Your task to perform on an android device: Play the last video I watched on Youtube Image 0: 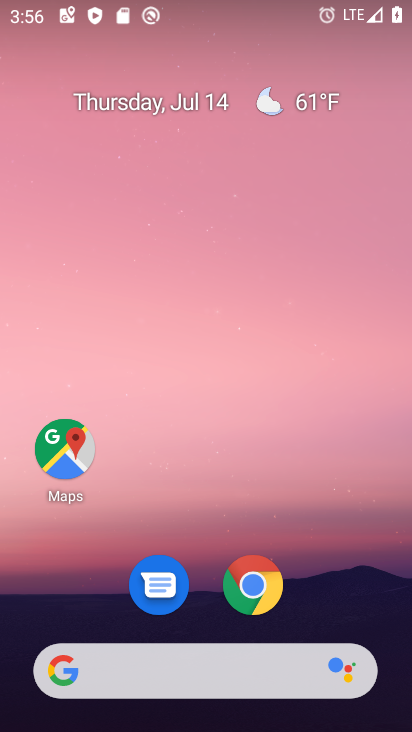
Step 0: drag from (314, 604) to (328, 57)
Your task to perform on an android device: Play the last video I watched on Youtube Image 1: 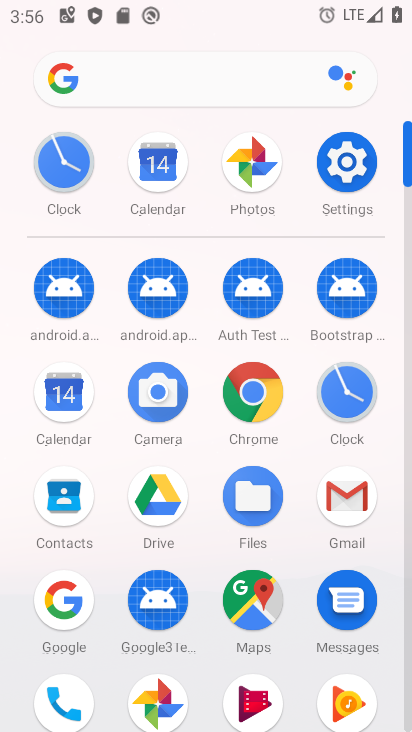
Step 1: drag from (306, 483) to (297, 162)
Your task to perform on an android device: Play the last video I watched on Youtube Image 2: 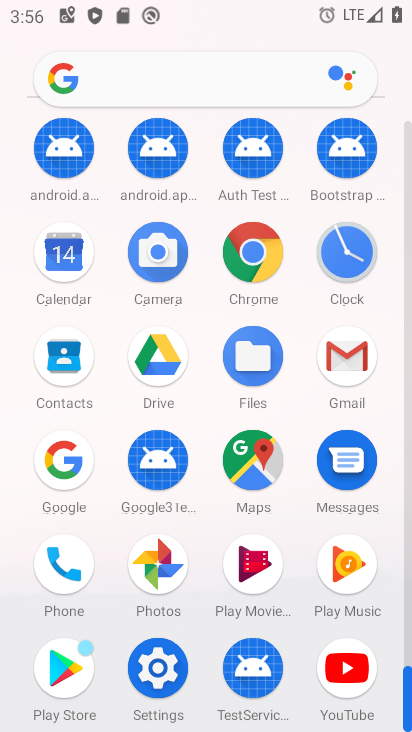
Step 2: click (351, 670)
Your task to perform on an android device: Play the last video I watched on Youtube Image 3: 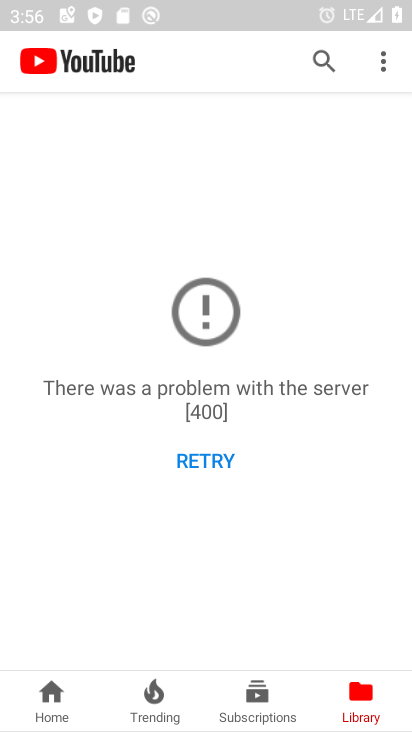
Step 3: click (189, 442)
Your task to perform on an android device: Play the last video I watched on Youtube Image 4: 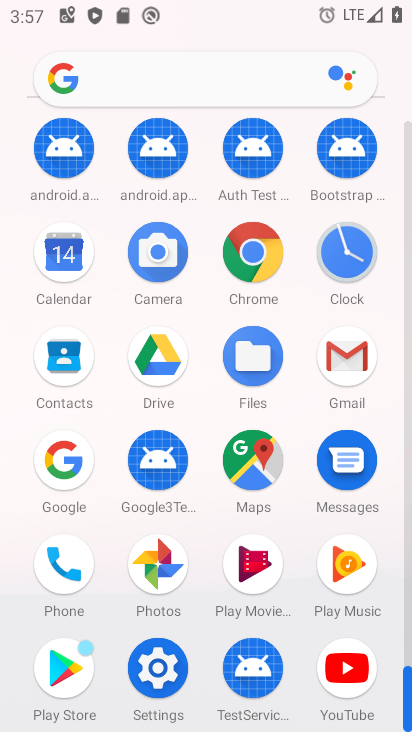
Step 4: click (350, 665)
Your task to perform on an android device: Play the last video I watched on Youtube Image 5: 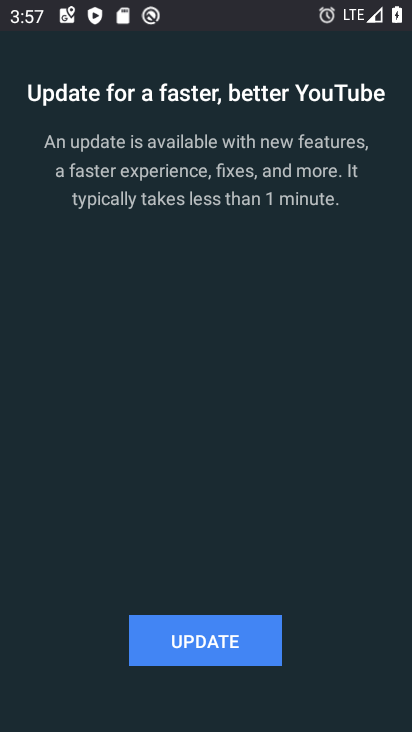
Step 5: click (262, 634)
Your task to perform on an android device: Play the last video I watched on Youtube Image 6: 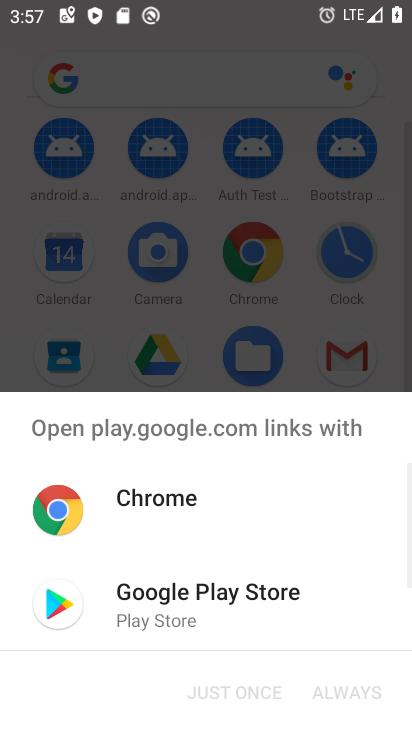
Step 6: click (255, 603)
Your task to perform on an android device: Play the last video I watched on Youtube Image 7: 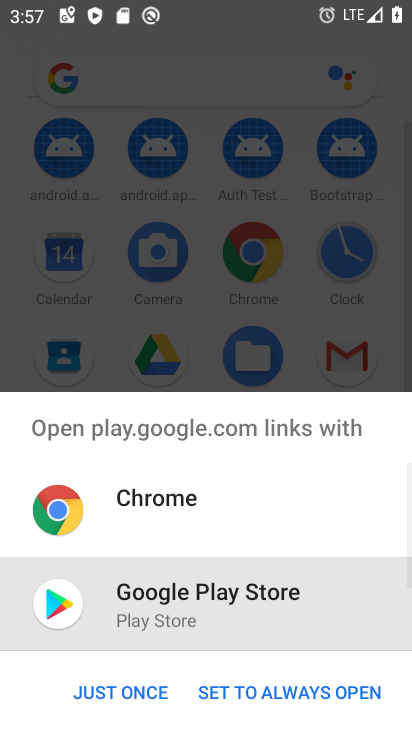
Step 7: click (151, 693)
Your task to perform on an android device: Play the last video I watched on Youtube Image 8: 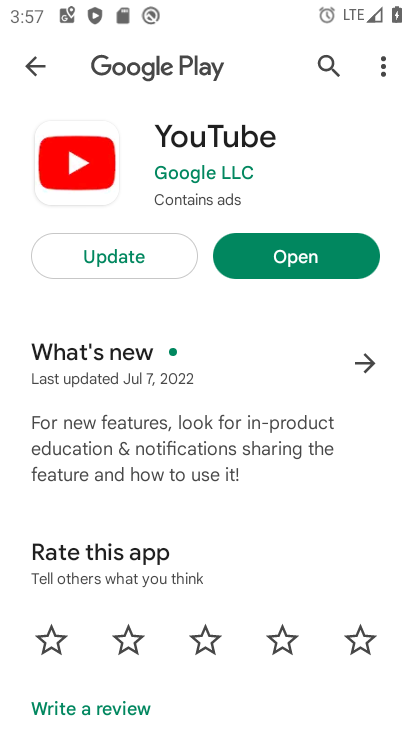
Step 8: click (168, 260)
Your task to perform on an android device: Play the last video I watched on Youtube Image 9: 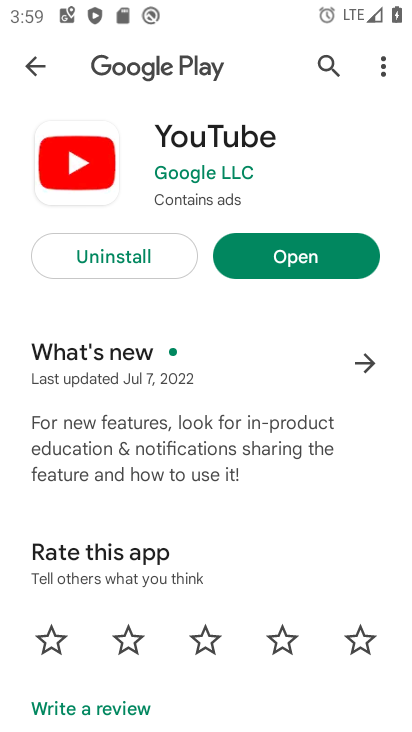
Step 9: click (309, 272)
Your task to perform on an android device: Play the last video I watched on Youtube Image 10: 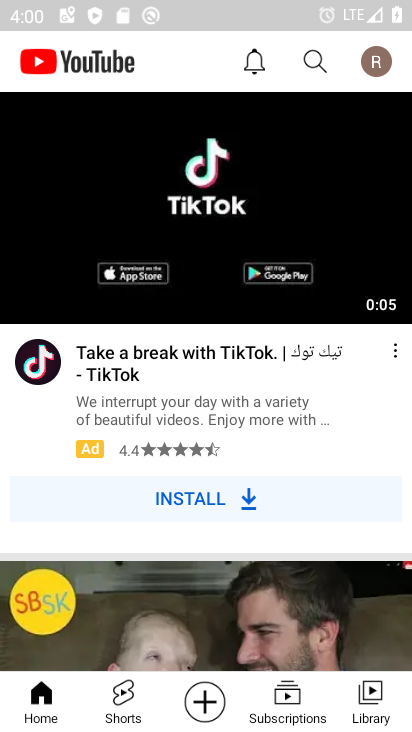
Step 10: click (366, 688)
Your task to perform on an android device: Play the last video I watched on Youtube Image 11: 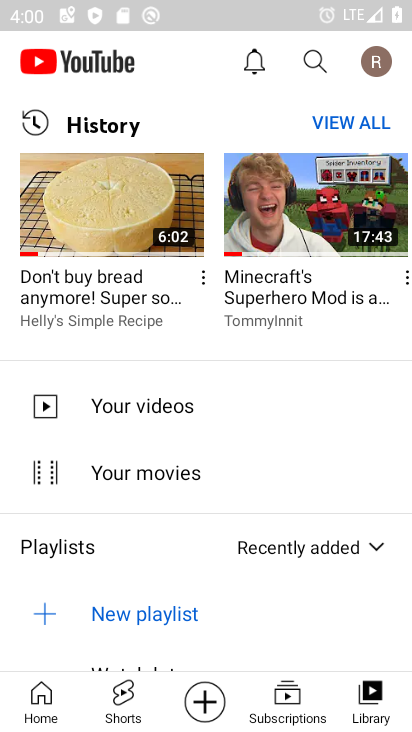
Step 11: click (95, 189)
Your task to perform on an android device: Play the last video I watched on Youtube Image 12: 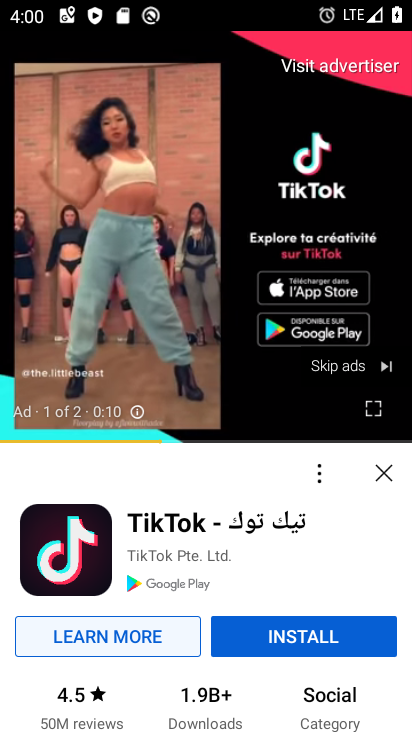
Step 12: task complete